Your task to perform on an android device: check data usage Image 0: 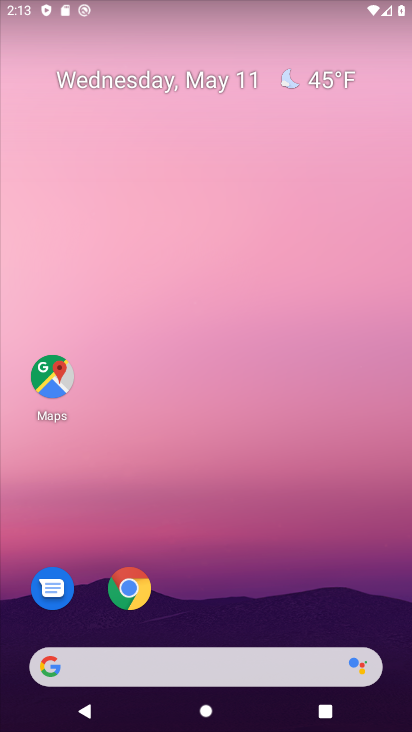
Step 0: drag from (209, 603) to (269, 193)
Your task to perform on an android device: check data usage Image 1: 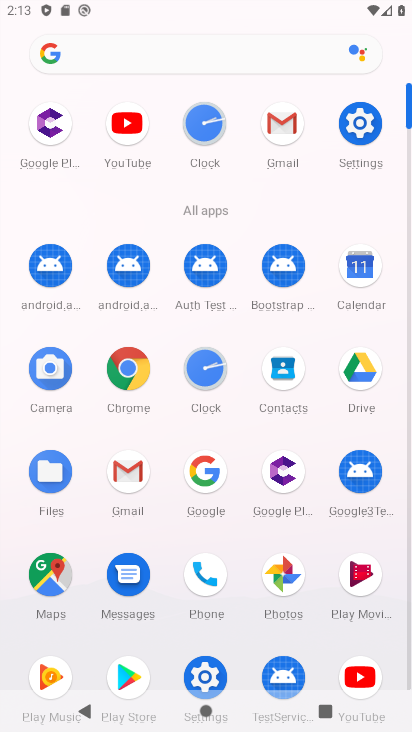
Step 1: click (360, 139)
Your task to perform on an android device: check data usage Image 2: 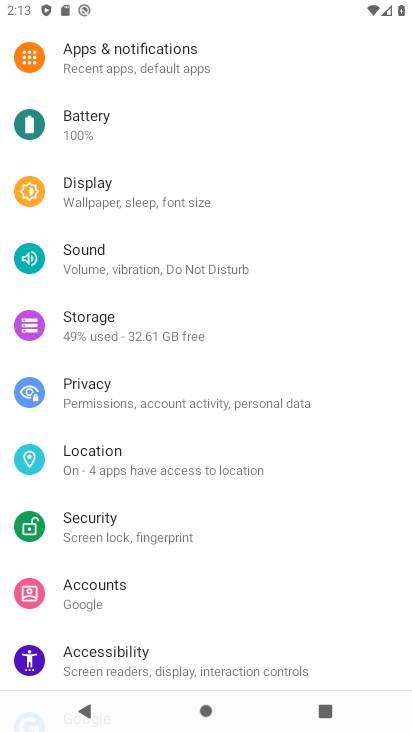
Step 2: drag from (172, 100) to (197, 517)
Your task to perform on an android device: check data usage Image 3: 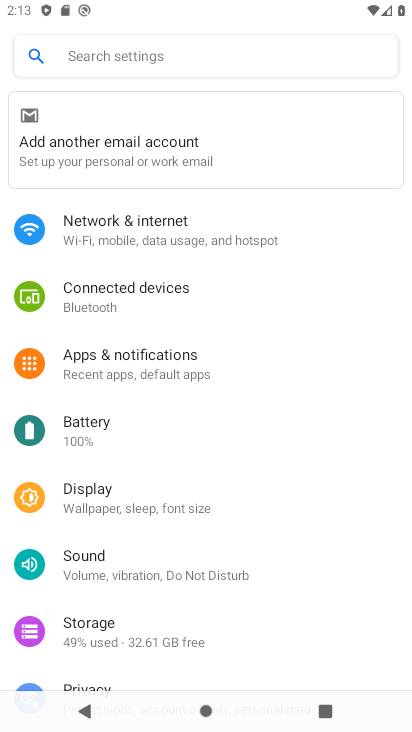
Step 3: click (182, 239)
Your task to perform on an android device: check data usage Image 4: 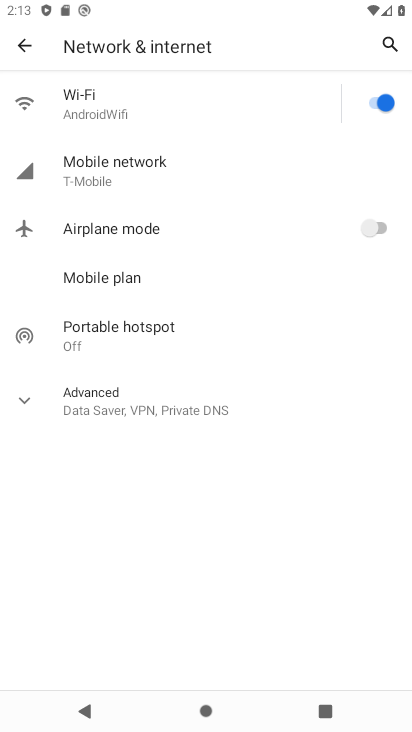
Step 4: click (134, 174)
Your task to perform on an android device: check data usage Image 5: 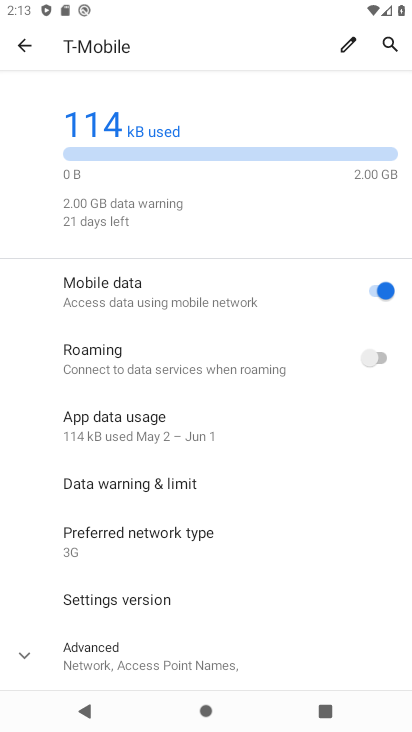
Step 5: click (198, 432)
Your task to perform on an android device: check data usage Image 6: 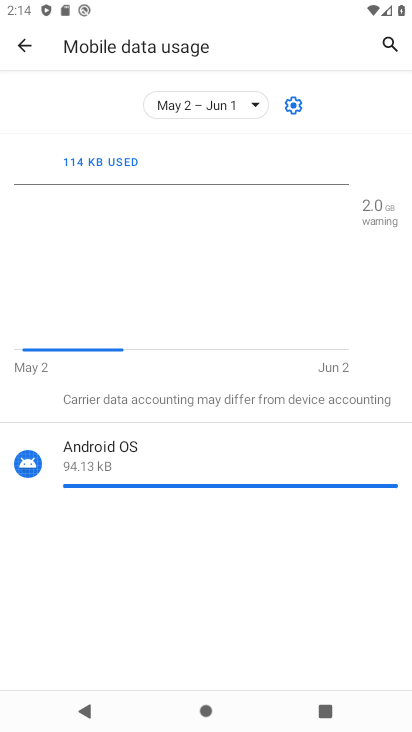
Step 6: task complete